Your task to perform on an android device: Open Yahoo.com Image 0: 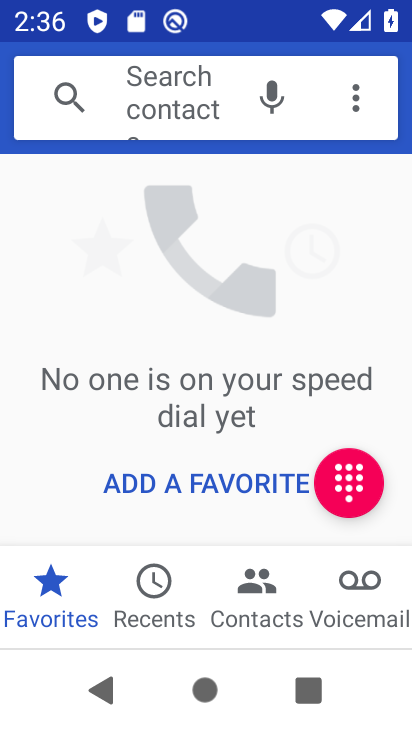
Step 0: press home button
Your task to perform on an android device: Open Yahoo.com Image 1: 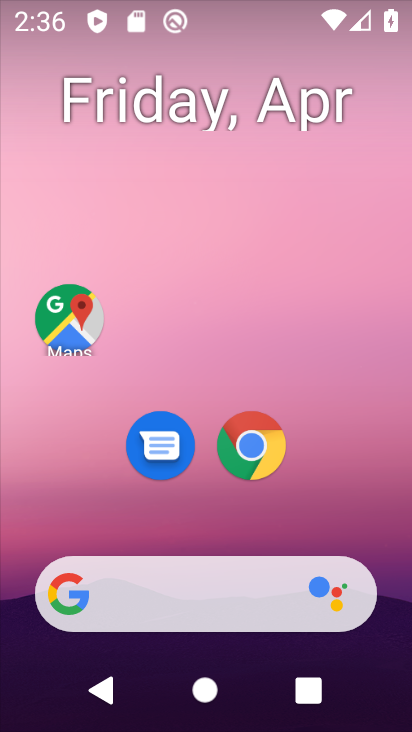
Step 1: click (255, 440)
Your task to perform on an android device: Open Yahoo.com Image 2: 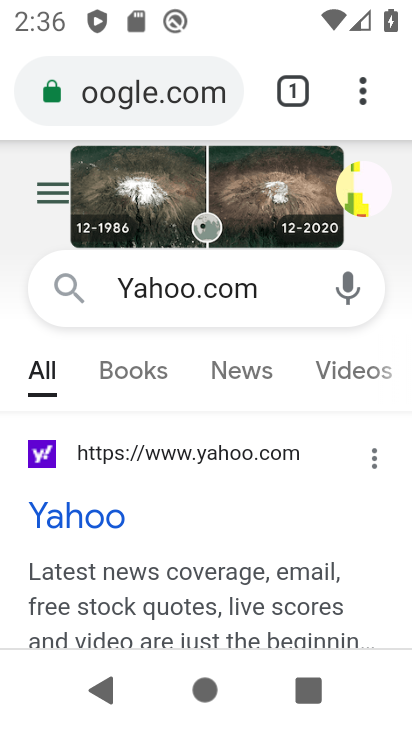
Step 2: click (208, 96)
Your task to perform on an android device: Open Yahoo.com Image 3: 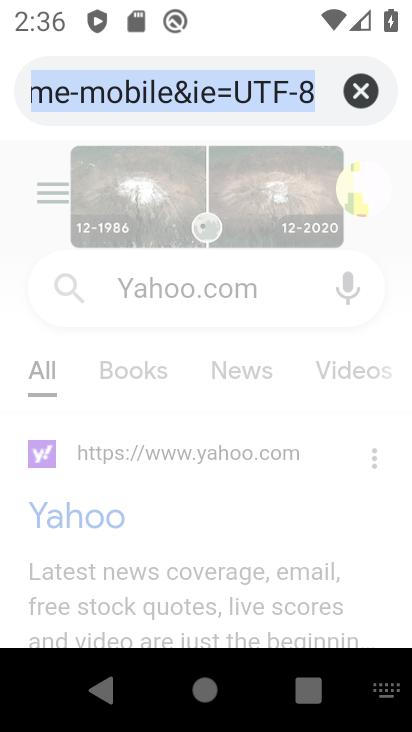
Step 3: click (362, 101)
Your task to perform on an android device: Open Yahoo.com Image 4: 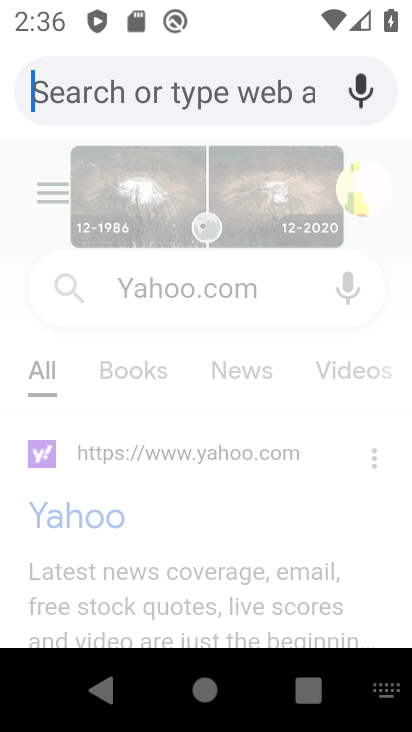
Step 4: click (260, 74)
Your task to perform on an android device: Open Yahoo.com Image 5: 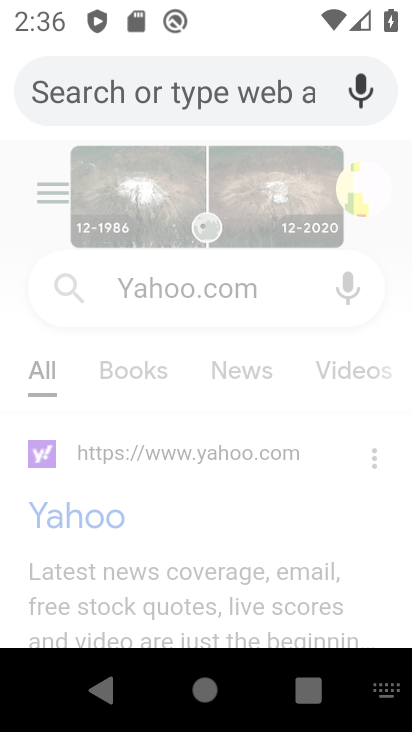
Step 5: type "Yahoo.com"
Your task to perform on an android device: Open Yahoo.com Image 6: 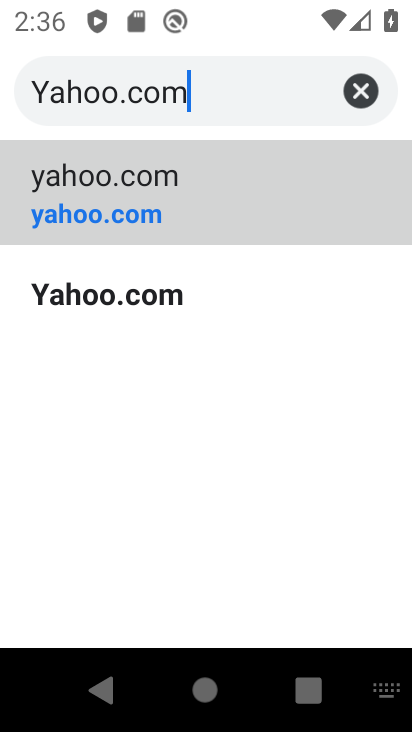
Step 6: type ""
Your task to perform on an android device: Open Yahoo.com Image 7: 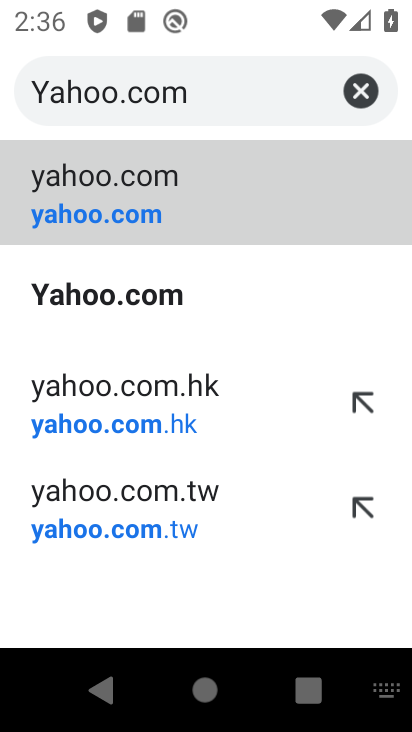
Step 7: click (134, 287)
Your task to perform on an android device: Open Yahoo.com Image 8: 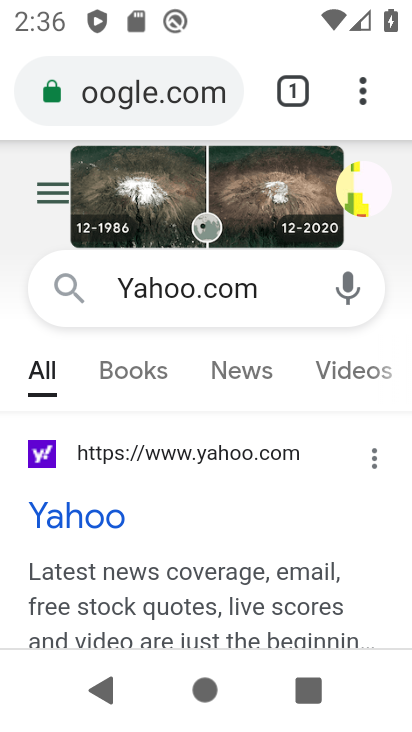
Step 8: task complete